Your task to perform on an android device: toggle sleep mode Image 0: 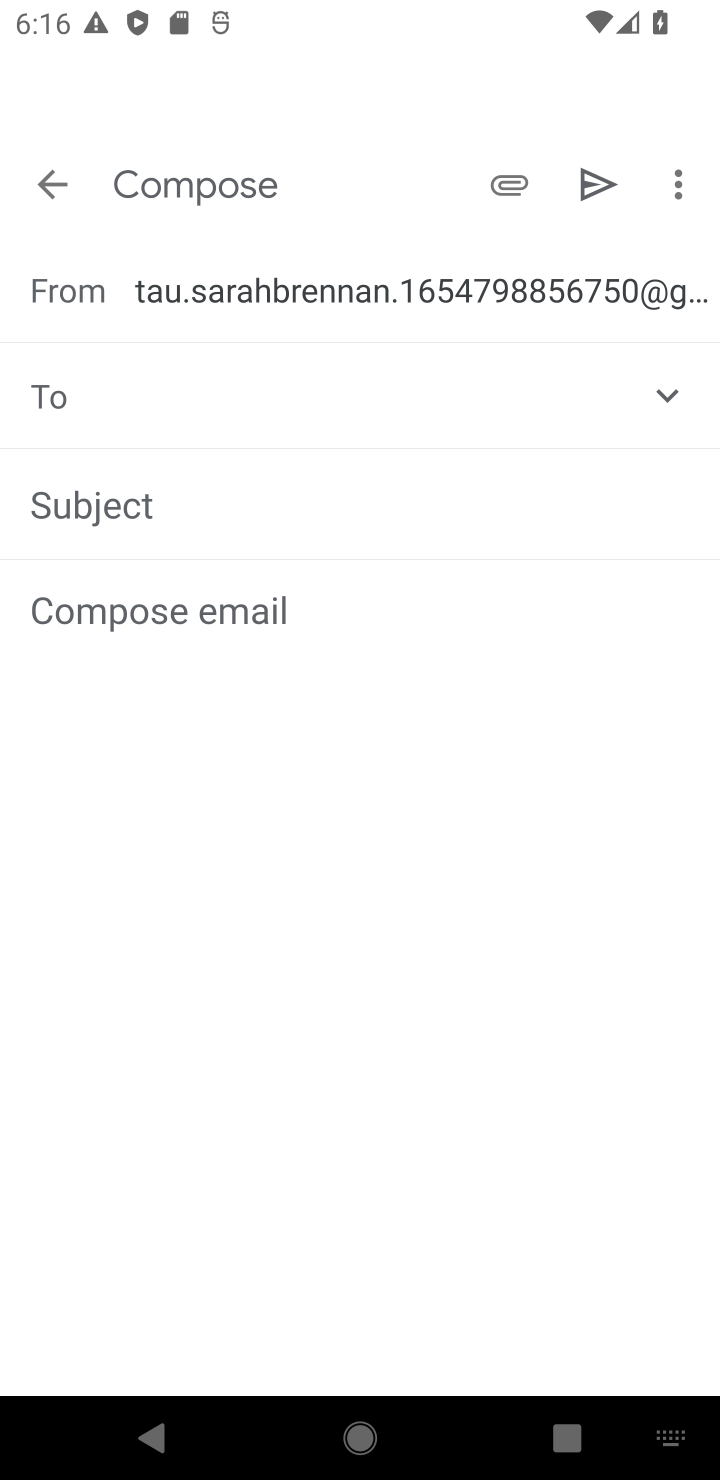
Step 0: press back button
Your task to perform on an android device: toggle sleep mode Image 1: 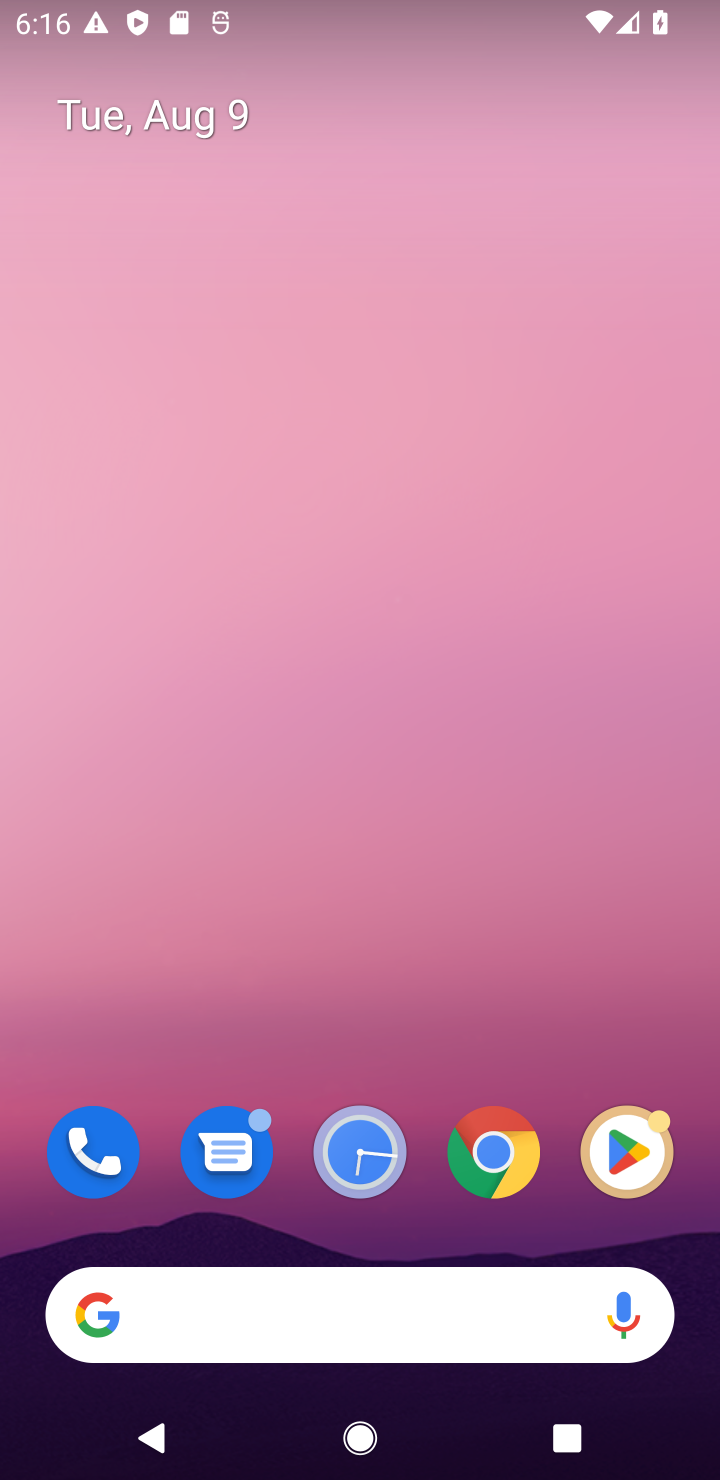
Step 1: drag from (386, 967) to (609, 10)
Your task to perform on an android device: toggle sleep mode Image 2: 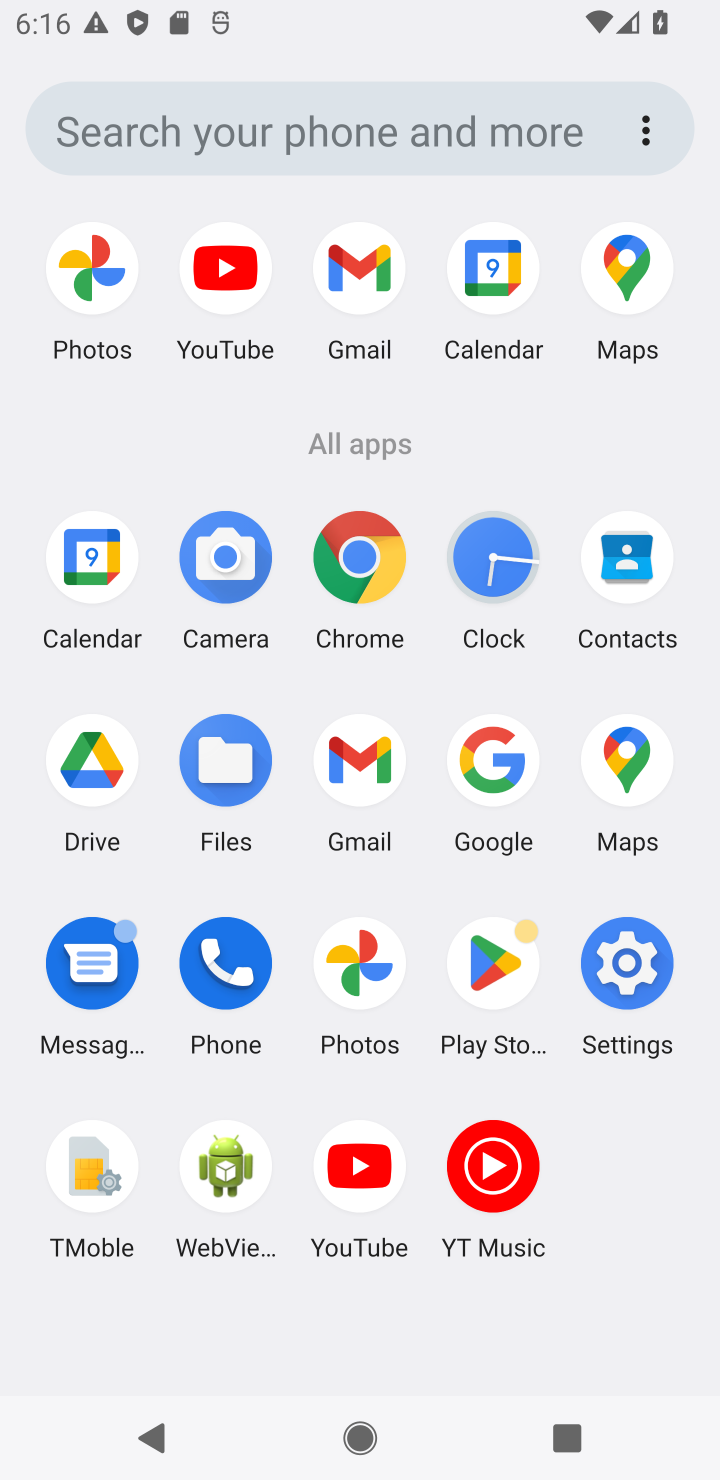
Step 2: click (630, 940)
Your task to perform on an android device: toggle sleep mode Image 3: 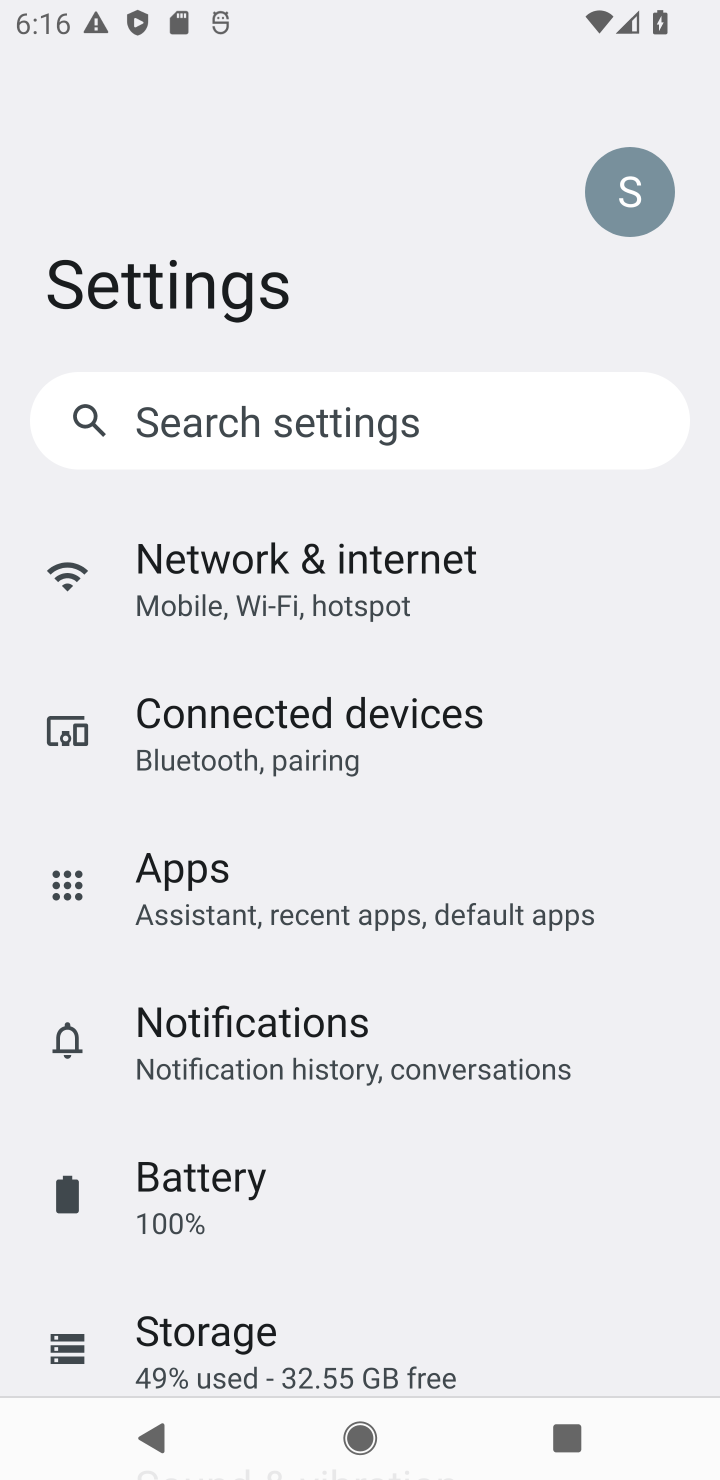
Step 3: click (371, 417)
Your task to perform on an android device: toggle sleep mode Image 4: 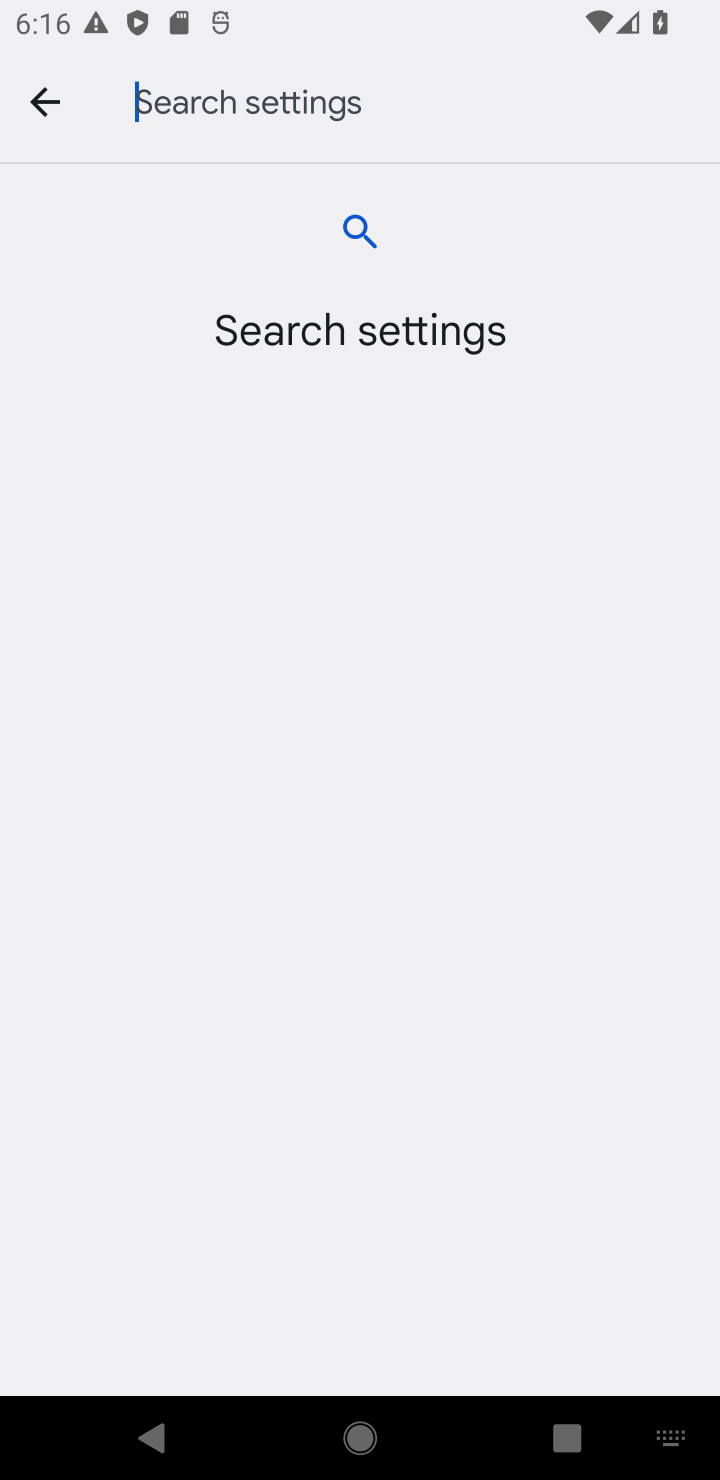
Step 4: type "sleep mode"
Your task to perform on an android device: toggle sleep mode Image 5: 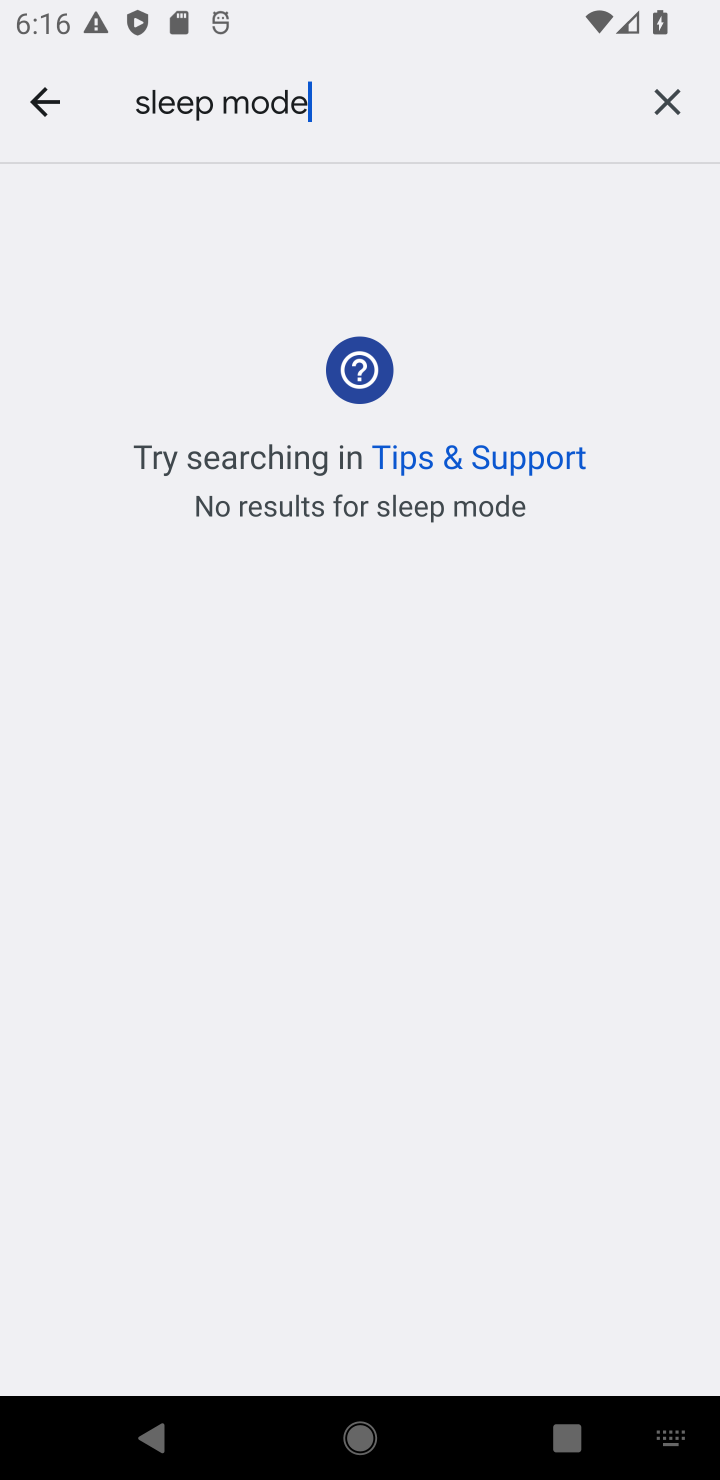
Step 5: task complete